Your task to perform on an android device: Show me the alarms in the clock app Image 0: 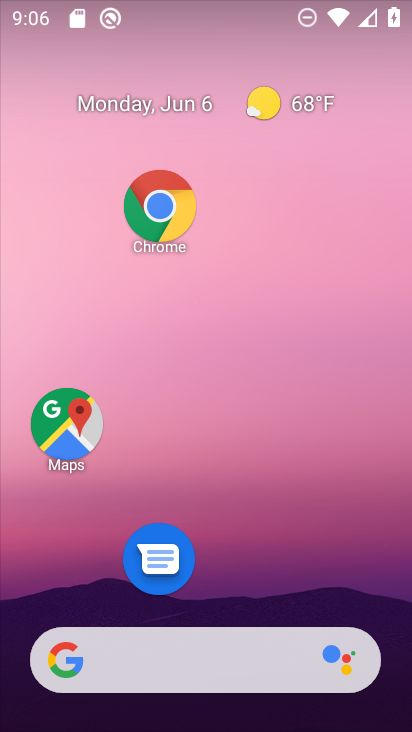
Step 0: drag from (240, 629) to (240, 286)
Your task to perform on an android device: Show me the alarms in the clock app Image 1: 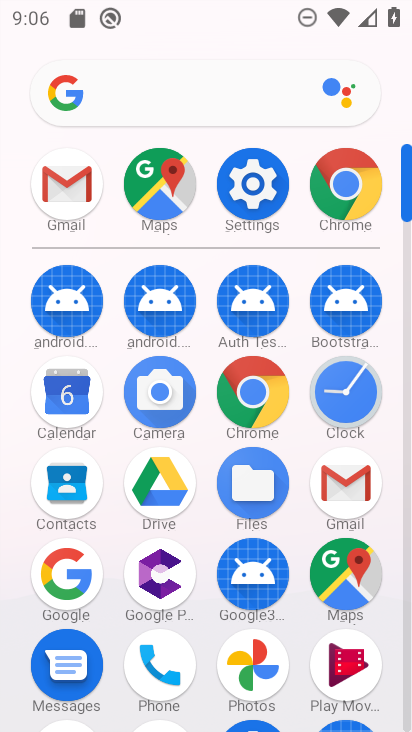
Step 1: click (347, 396)
Your task to perform on an android device: Show me the alarms in the clock app Image 2: 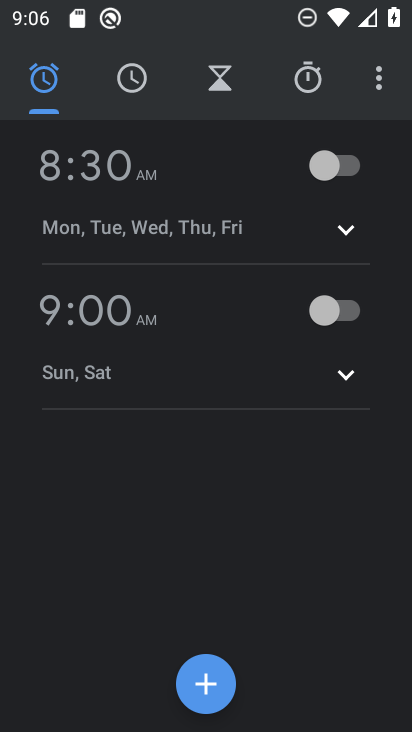
Step 2: task complete